Your task to perform on an android device: toggle notifications settings in the gmail app Image 0: 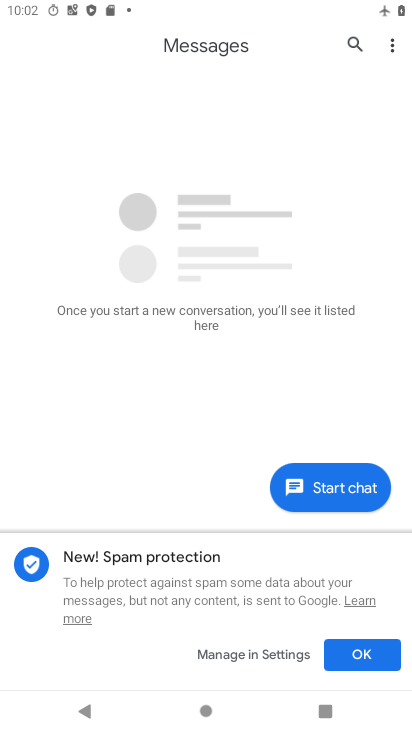
Step 0: press home button
Your task to perform on an android device: toggle notifications settings in the gmail app Image 1: 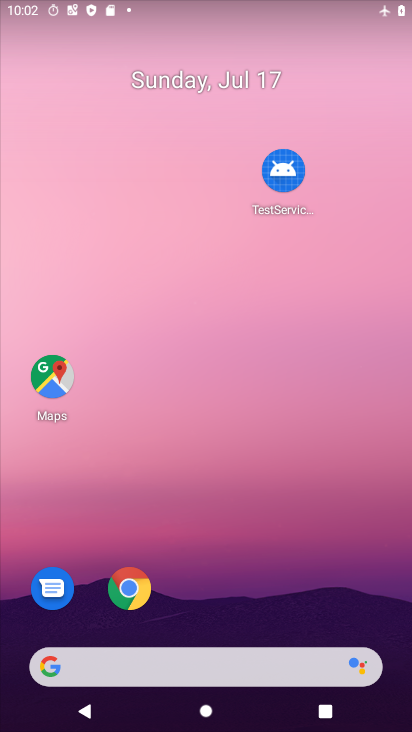
Step 1: drag from (219, 593) to (312, 111)
Your task to perform on an android device: toggle notifications settings in the gmail app Image 2: 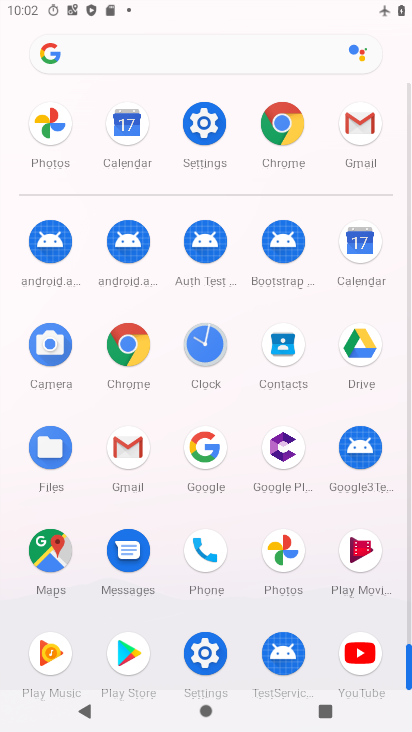
Step 2: click (140, 453)
Your task to perform on an android device: toggle notifications settings in the gmail app Image 3: 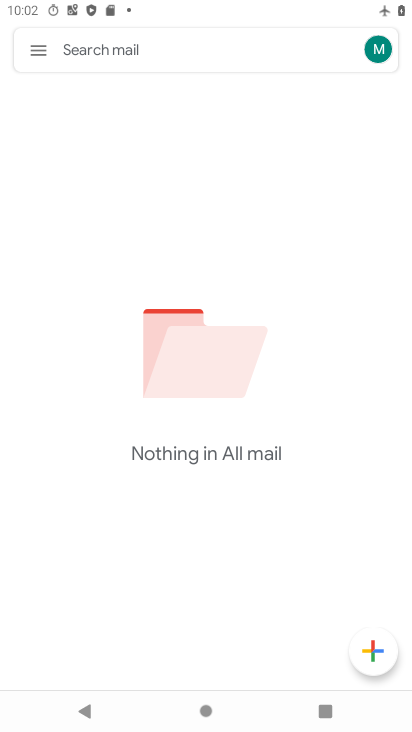
Step 3: click (42, 59)
Your task to perform on an android device: toggle notifications settings in the gmail app Image 4: 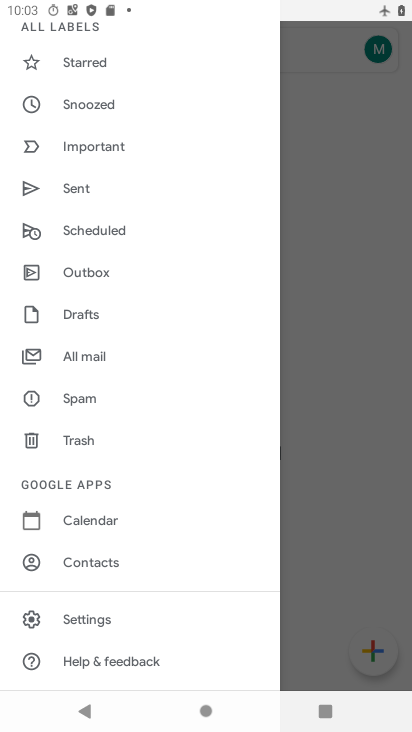
Step 4: click (69, 620)
Your task to perform on an android device: toggle notifications settings in the gmail app Image 5: 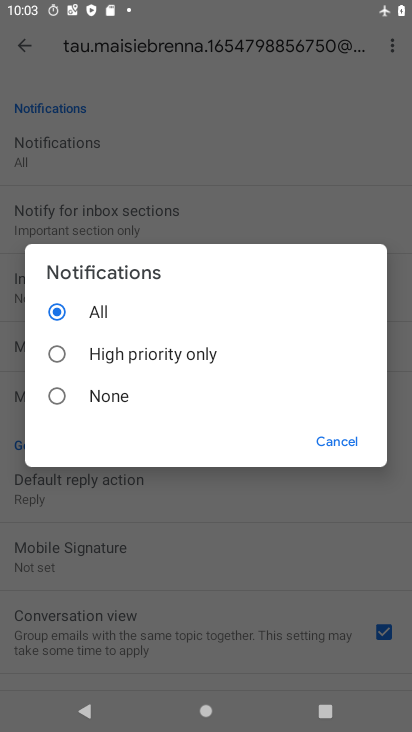
Step 5: click (332, 439)
Your task to perform on an android device: toggle notifications settings in the gmail app Image 6: 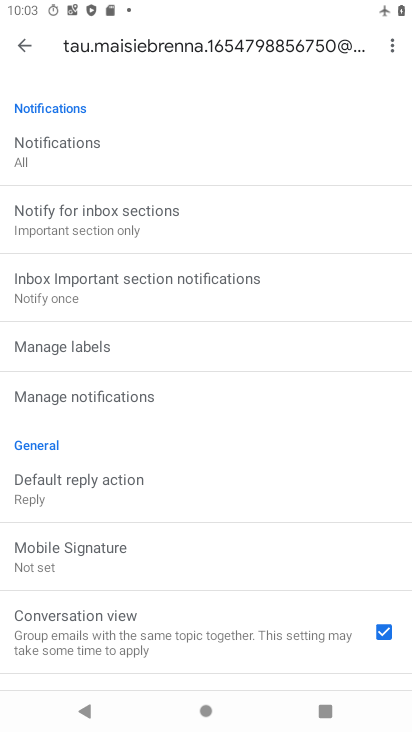
Step 6: click (20, 40)
Your task to perform on an android device: toggle notifications settings in the gmail app Image 7: 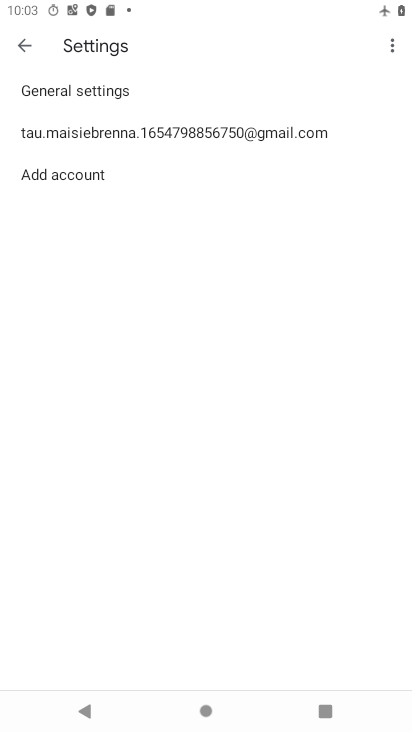
Step 7: click (126, 97)
Your task to perform on an android device: toggle notifications settings in the gmail app Image 8: 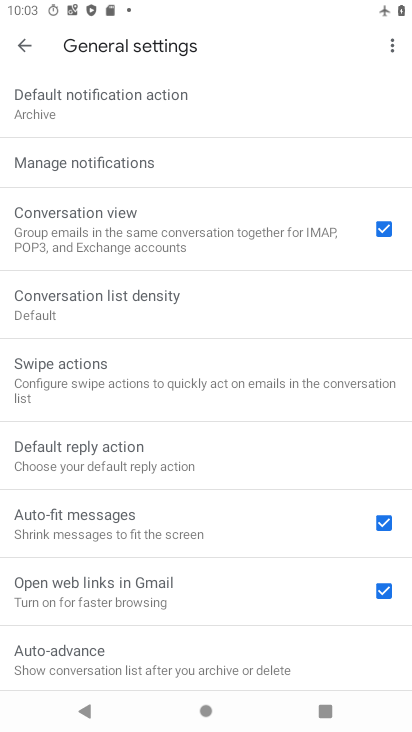
Step 8: click (152, 167)
Your task to perform on an android device: toggle notifications settings in the gmail app Image 9: 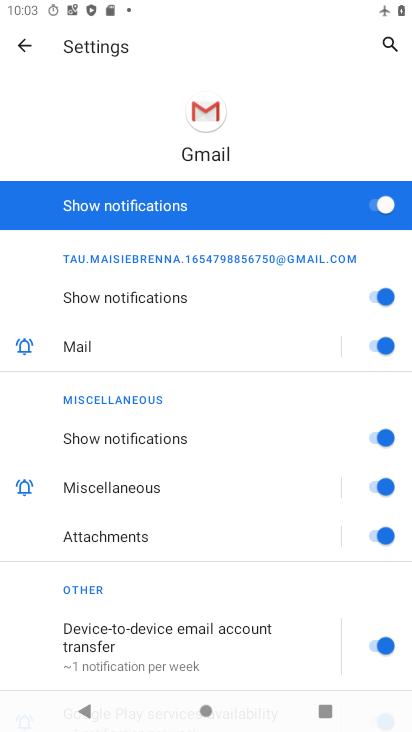
Step 9: click (367, 200)
Your task to perform on an android device: toggle notifications settings in the gmail app Image 10: 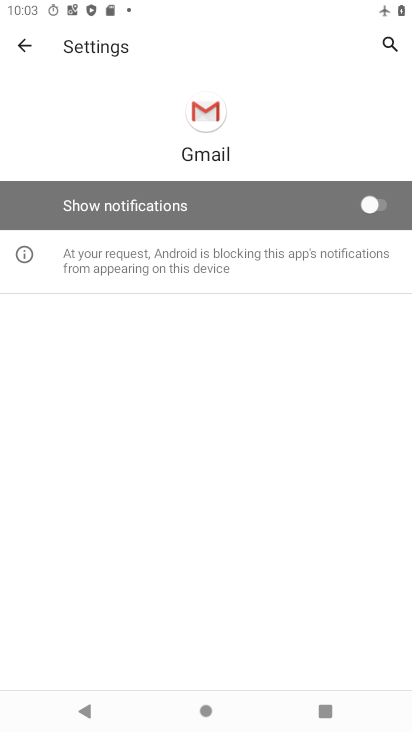
Step 10: task complete